Your task to perform on an android device: Go to internet settings Image 0: 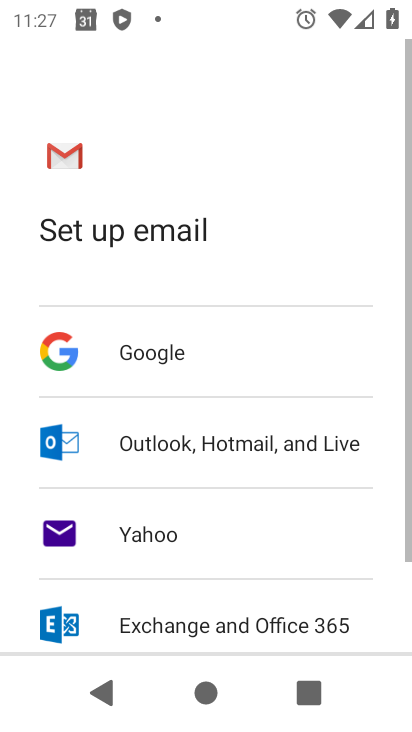
Step 0: press home button
Your task to perform on an android device: Go to internet settings Image 1: 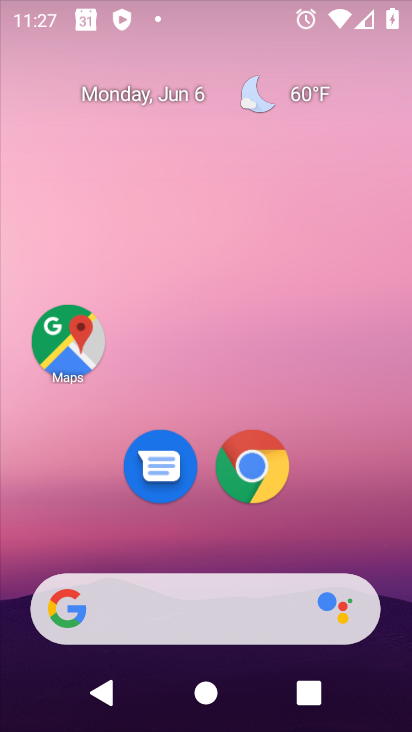
Step 1: drag from (345, 612) to (408, 94)
Your task to perform on an android device: Go to internet settings Image 2: 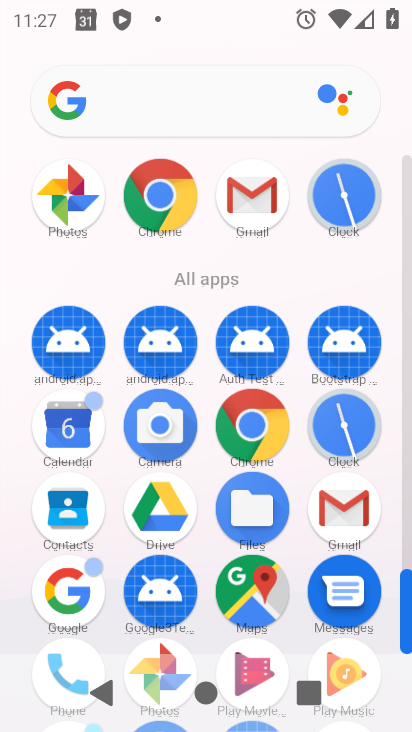
Step 2: drag from (193, 644) to (258, 271)
Your task to perform on an android device: Go to internet settings Image 3: 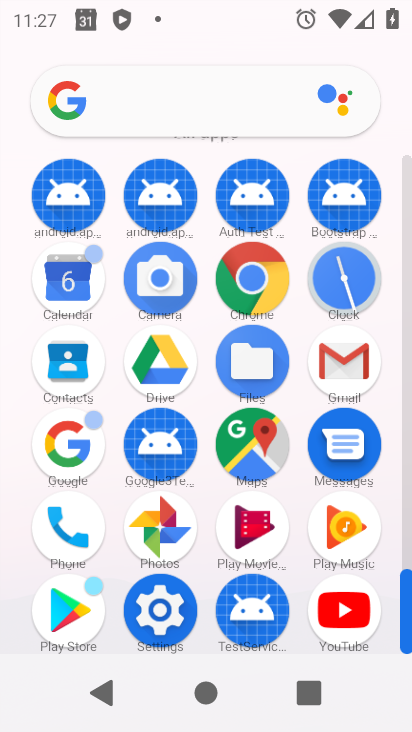
Step 3: click (170, 599)
Your task to perform on an android device: Go to internet settings Image 4: 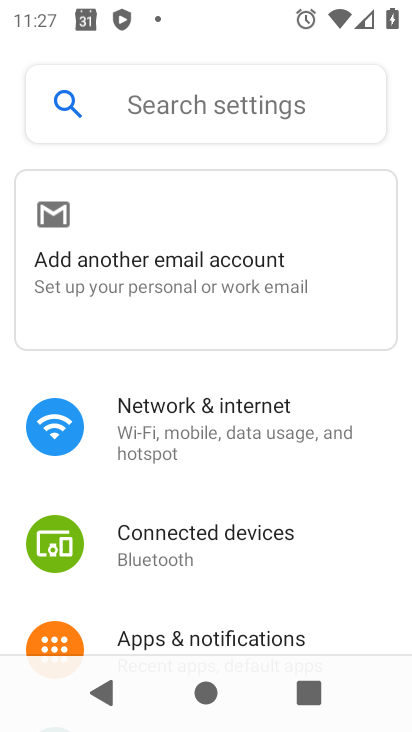
Step 4: click (240, 393)
Your task to perform on an android device: Go to internet settings Image 5: 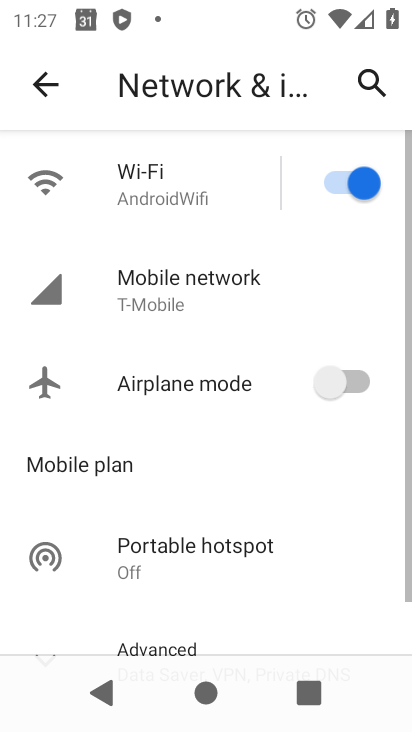
Step 5: task complete